Your task to perform on an android device: allow notifications from all sites in the chrome app Image 0: 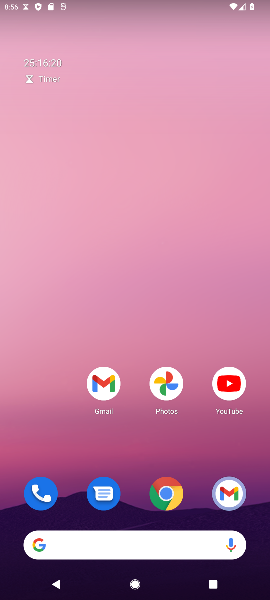
Step 0: drag from (130, 378) to (259, 237)
Your task to perform on an android device: allow notifications from all sites in the chrome app Image 1: 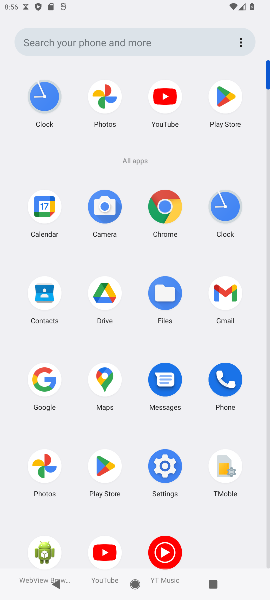
Step 1: click (167, 203)
Your task to perform on an android device: allow notifications from all sites in the chrome app Image 2: 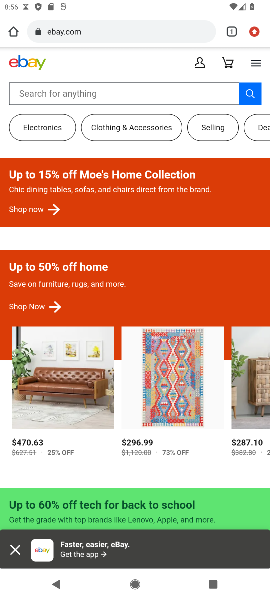
Step 2: drag from (253, 33) to (165, 419)
Your task to perform on an android device: allow notifications from all sites in the chrome app Image 3: 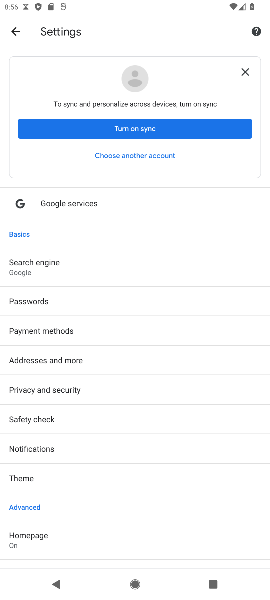
Step 3: drag from (109, 518) to (172, 255)
Your task to perform on an android device: allow notifications from all sites in the chrome app Image 4: 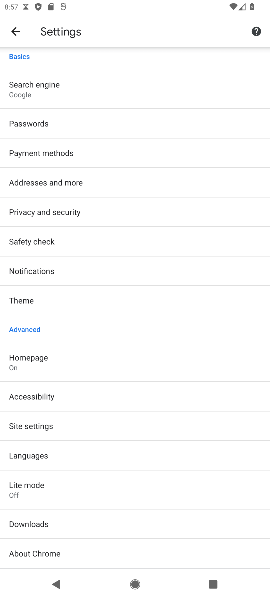
Step 4: click (43, 426)
Your task to perform on an android device: allow notifications from all sites in the chrome app Image 5: 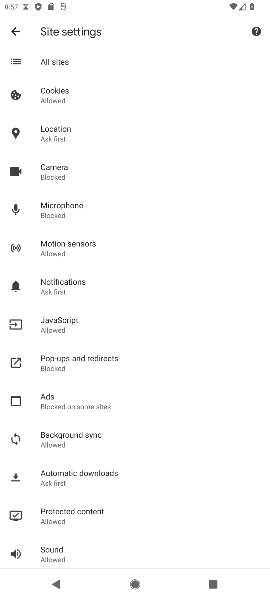
Step 5: drag from (120, 211) to (170, 487)
Your task to perform on an android device: allow notifications from all sites in the chrome app Image 6: 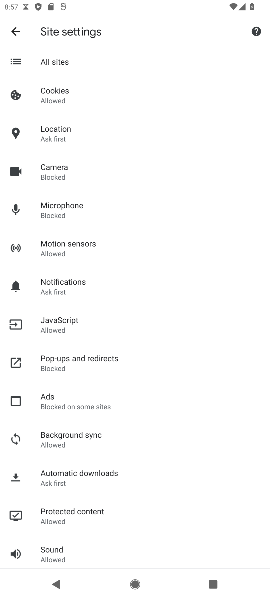
Step 6: drag from (138, 496) to (146, 192)
Your task to perform on an android device: allow notifications from all sites in the chrome app Image 7: 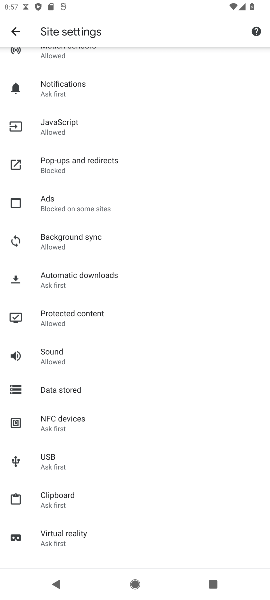
Step 7: drag from (105, 132) to (204, 483)
Your task to perform on an android device: allow notifications from all sites in the chrome app Image 8: 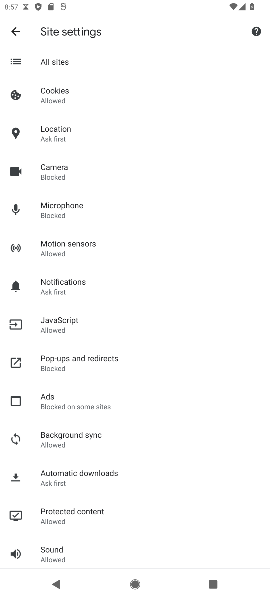
Step 8: drag from (131, 123) to (238, 528)
Your task to perform on an android device: allow notifications from all sites in the chrome app Image 9: 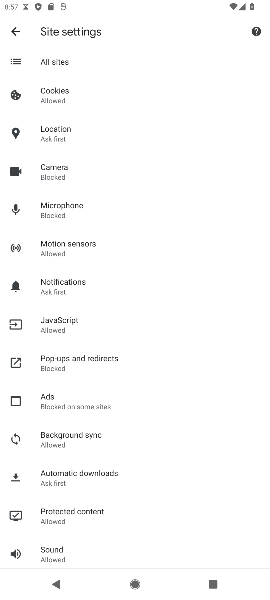
Step 9: drag from (97, 409) to (104, 134)
Your task to perform on an android device: allow notifications from all sites in the chrome app Image 10: 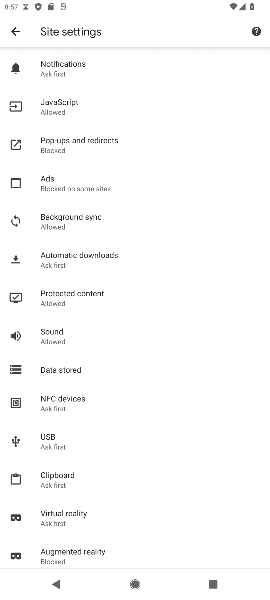
Step 10: drag from (110, 187) to (150, 546)
Your task to perform on an android device: allow notifications from all sites in the chrome app Image 11: 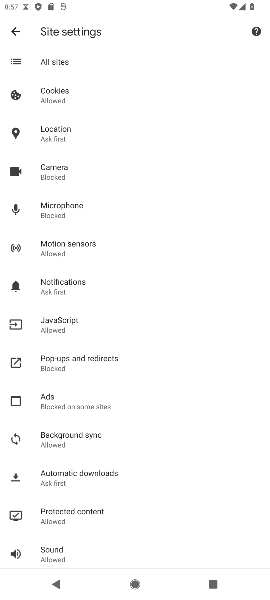
Step 11: drag from (77, 112) to (157, 449)
Your task to perform on an android device: allow notifications from all sites in the chrome app Image 12: 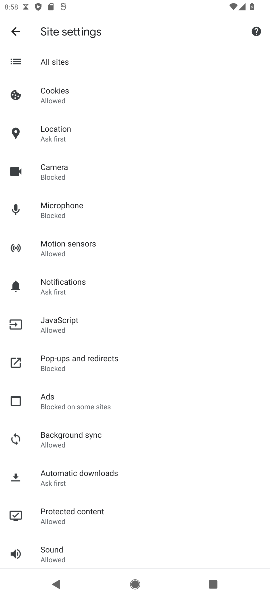
Step 12: click (51, 279)
Your task to perform on an android device: allow notifications from all sites in the chrome app Image 13: 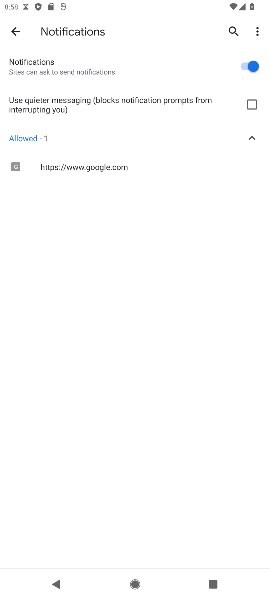
Step 13: task complete